Your task to perform on an android device: Open display settings Image 0: 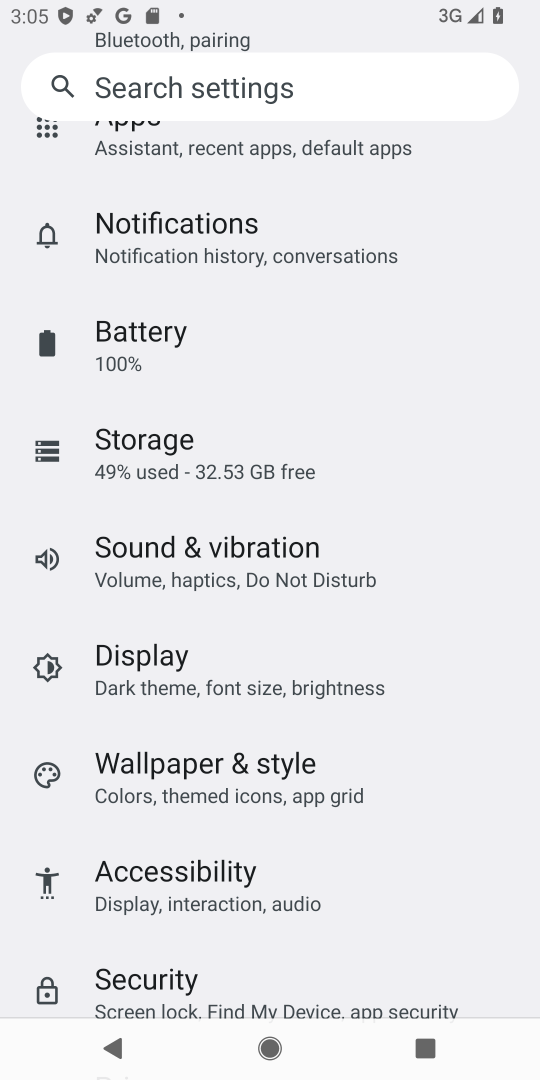
Step 0: click (167, 650)
Your task to perform on an android device: Open display settings Image 1: 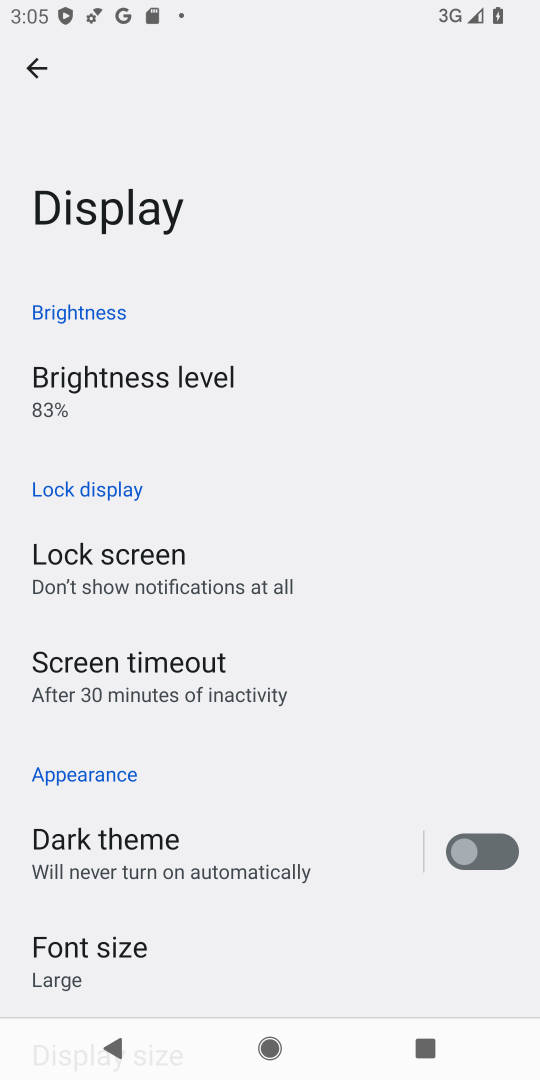
Step 1: task complete